Your task to perform on an android device: turn vacation reply on in the gmail app Image 0: 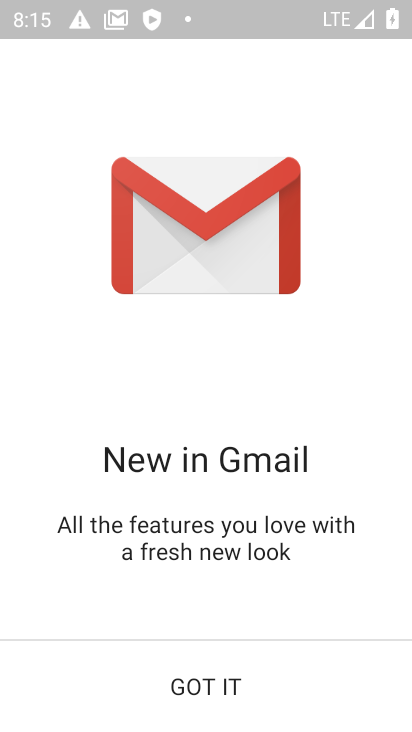
Step 0: click (293, 669)
Your task to perform on an android device: turn vacation reply on in the gmail app Image 1: 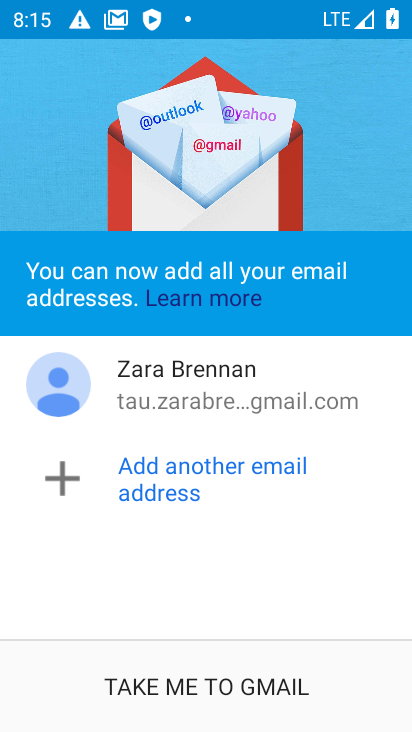
Step 1: click (188, 683)
Your task to perform on an android device: turn vacation reply on in the gmail app Image 2: 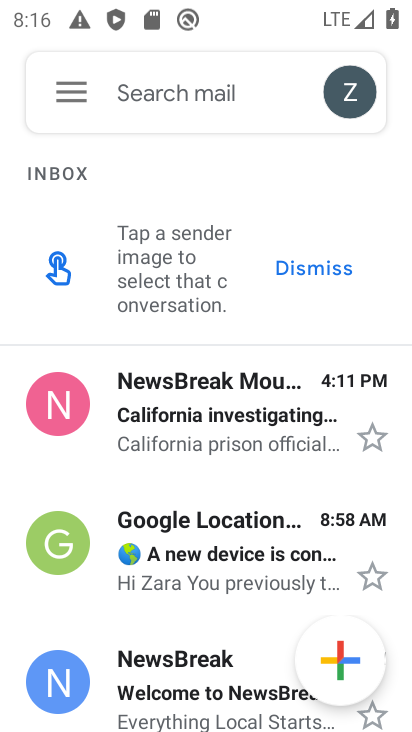
Step 2: click (82, 94)
Your task to perform on an android device: turn vacation reply on in the gmail app Image 3: 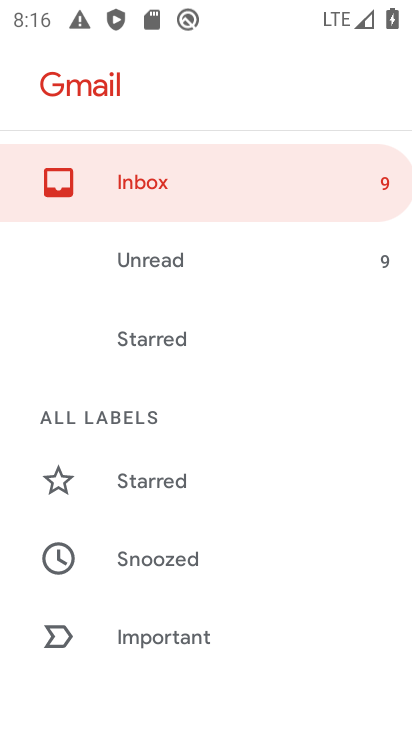
Step 3: drag from (190, 633) to (271, 50)
Your task to perform on an android device: turn vacation reply on in the gmail app Image 4: 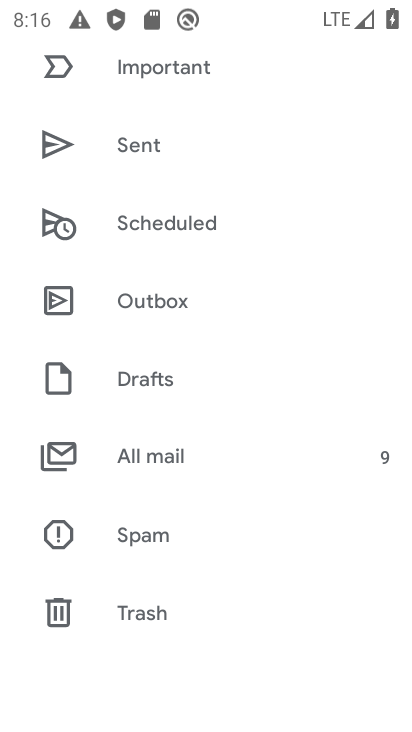
Step 4: drag from (226, 559) to (221, 143)
Your task to perform on an android device: turn vacation reply on in the gmail app Image 5: 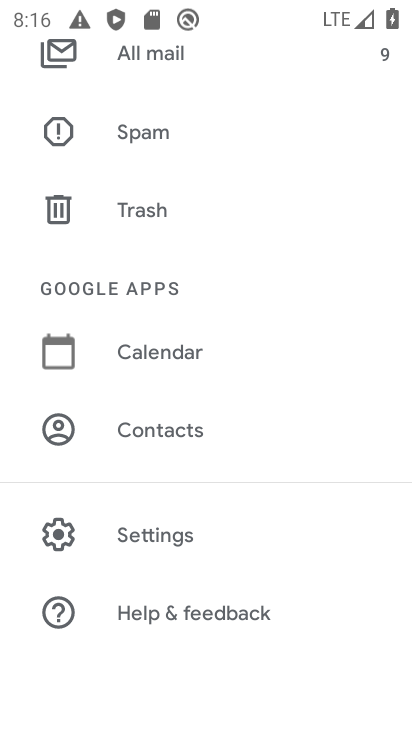
Step 5: click (191, 543)
Your task to perform on an android device: turn vacation reply on in the gmail app Image 6: 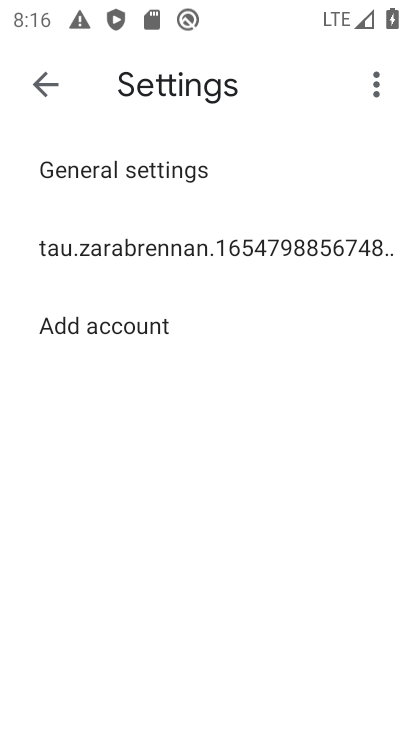
Step 6: click (196, 262)
Your task to perform on an android device: turn vacation reply on in the gmail app Image 7: 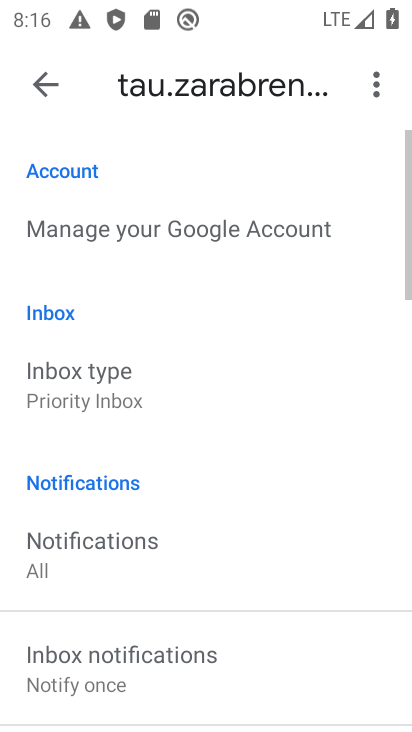
Step 7: drag from (142, 640) to (142, 159)
Your task to perform on an android device: turn vacation reply on in the gmail app Image 8: 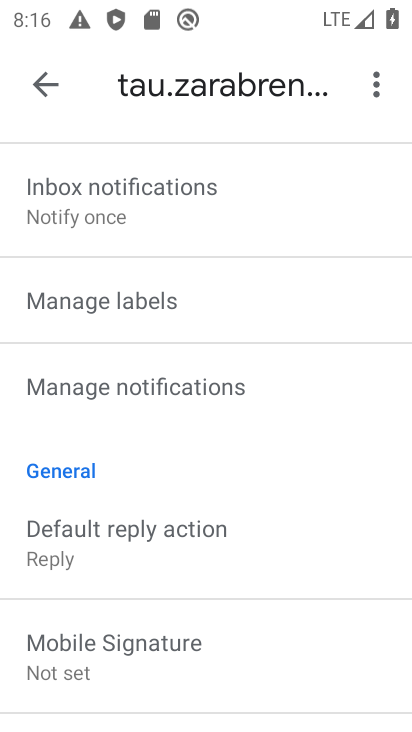
Step 8: drag from (146, 637) to (147, 168)
Your task to perform on an android device: turn vacation reply on in the gmail app Image 9: 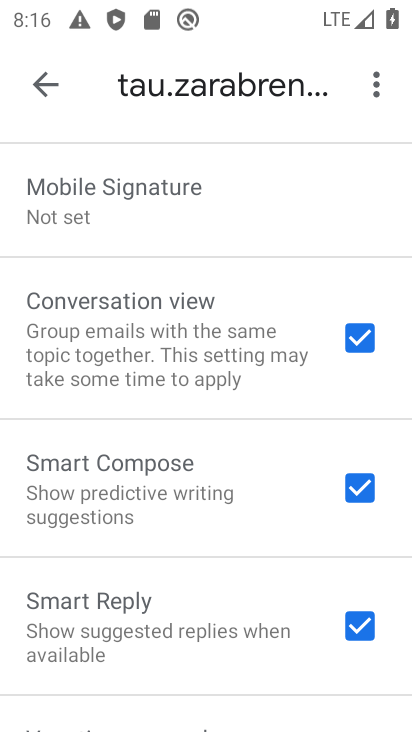
Step 9: drag from (192, 611) to (210, 214)
Your task to perform on an android device: turn vacation reply on in the gmail app Image 10: 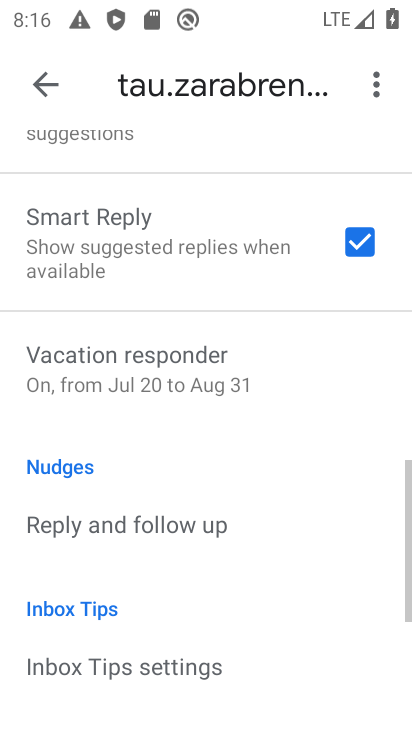
Step 10: click (210, 385)
Your task to perform on an android device: turn vacation reply on in the gmail app Image 11: 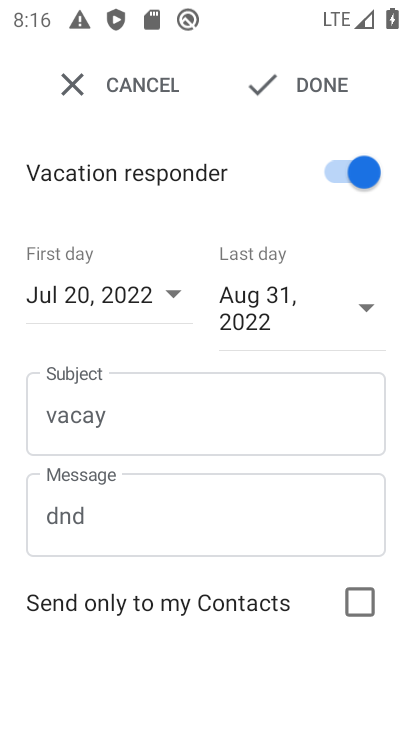
Step 11: task complete